Your task to perform on an android device: open device folders in google photos Image 0: 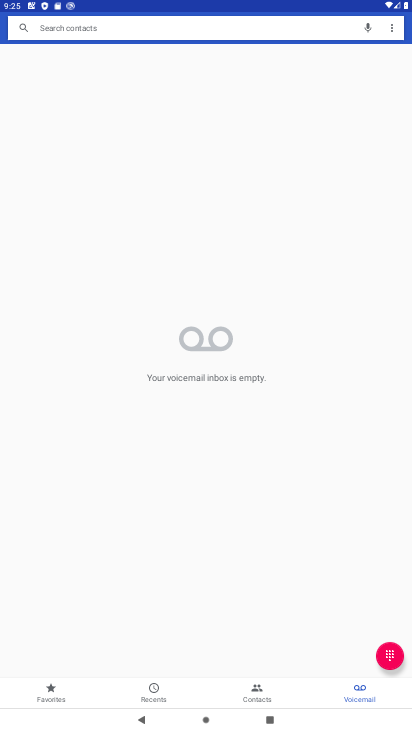
Step 0: press home button
Your task to perform on an android device: open device folders in google photos Image 1: 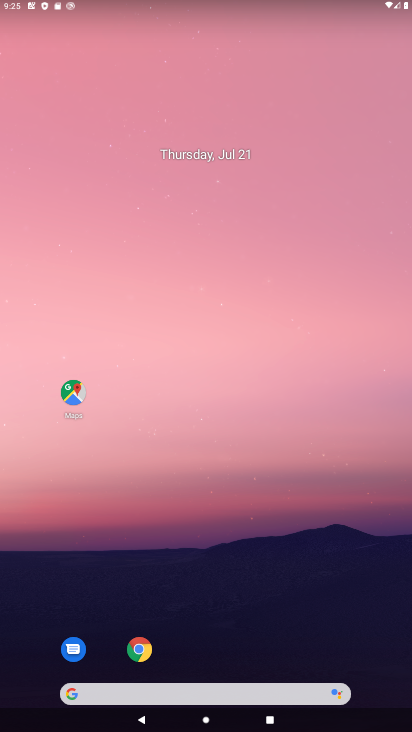
Step 1: drag from (252, 643) to (314, 203)
Your task to perform on an android device: open device folders in google photos Image 2: 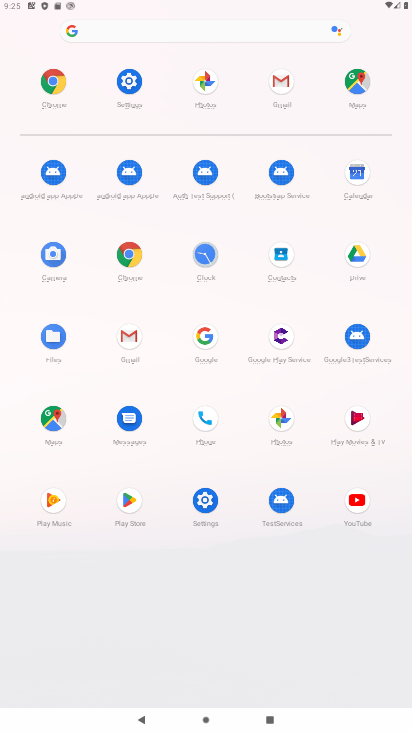
Step 2: click (299, 424)
Your task to perform on an android device: open device folders in google photos Image 3: 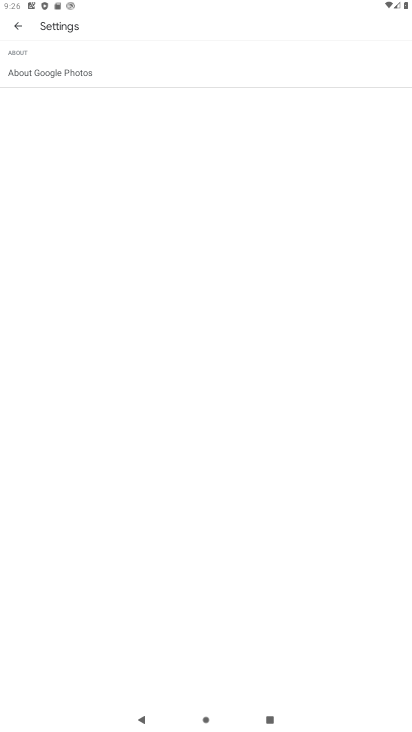
Step 3: click (19, 23)
Your task to perform on an android device: open device folders in google photos Image 4: 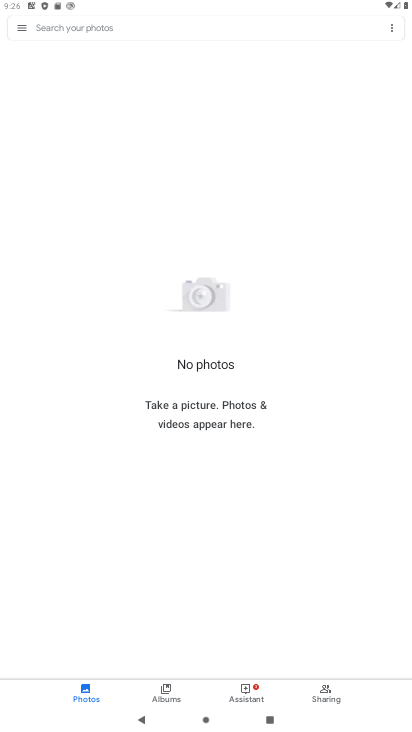
Step 4: click (22, 26)
Your task to perform on an android device: open device folders in google photos Image 5: 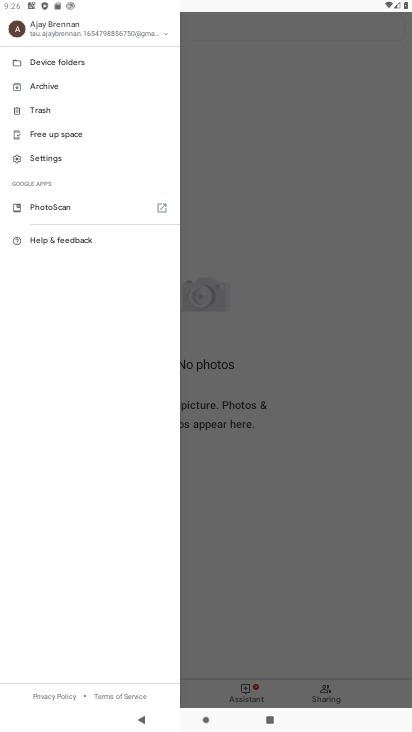
Step 5: click (73, 64)
Your task to perform on an android device: open device folders in google photos Image 6: 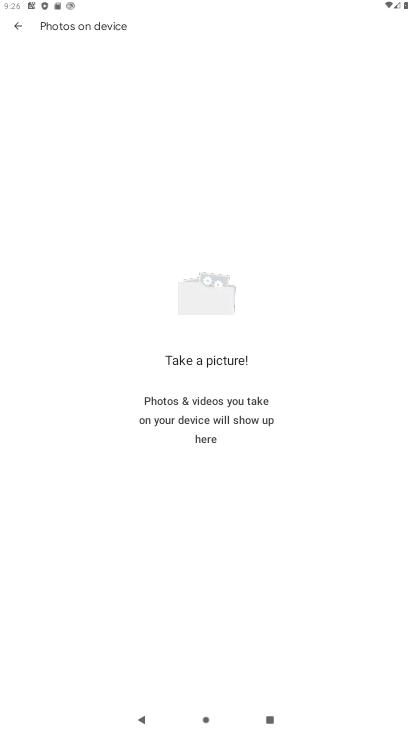
Step 6: task complete